Your task to perform on an android device: turn off wifi Image 0: 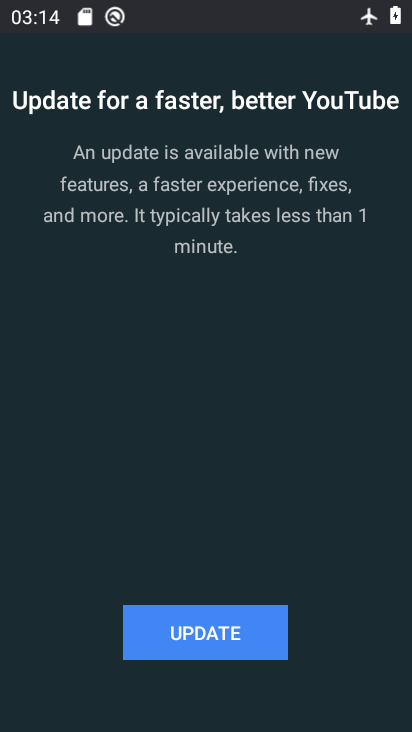
Step 0: press home button
Your task to perform on an android device: turn off wifi Image 1: 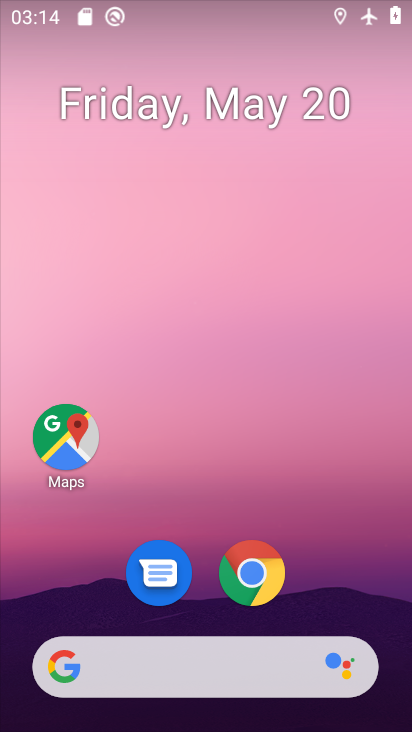
Step 1: drag from (208, 611) to (232, 234)
Your task to perform on an android device: turn off wifi Image 2: 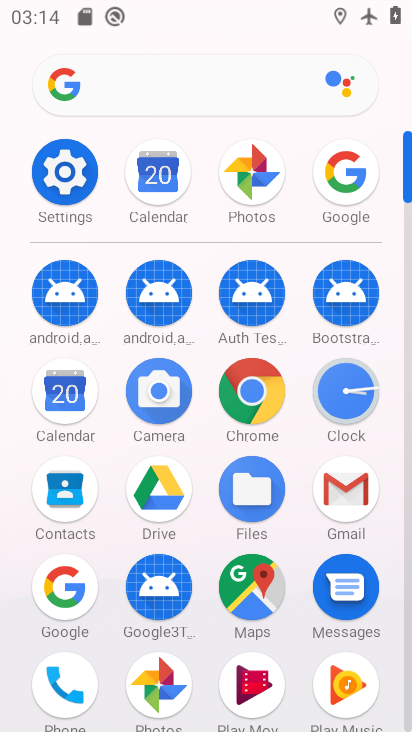
Step 2: click (93, 171)
Your task to perform on an android device: turn off wifi Image 3: 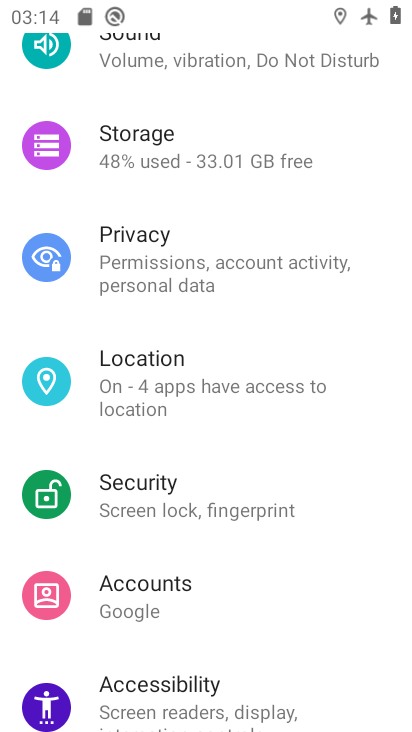
Step 3: drag from (206, 144) to (218, 504)
Your task to perform on an android device: turn off wifi Image 4: 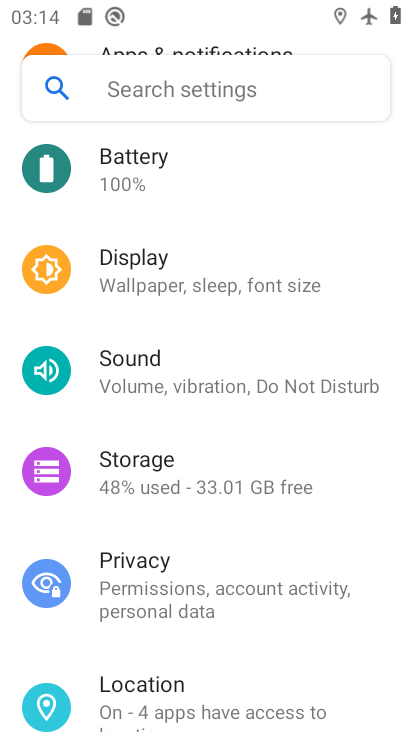
Step 4: drag from (221, 194) to (244, 436)
Your task to perform on an android device: turn off wifi Image 5: 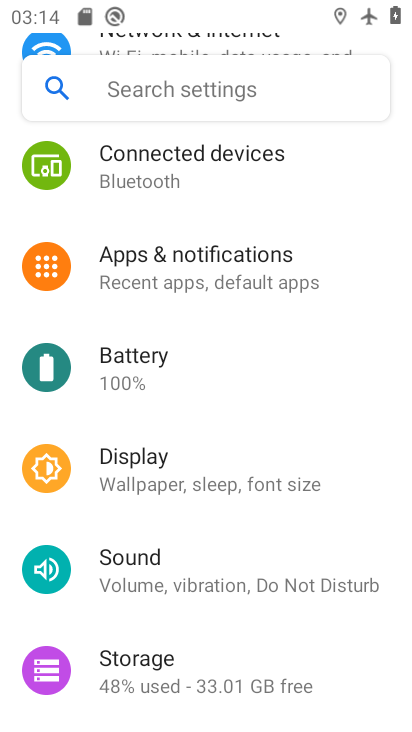
Step 5: drag from (224, 206) to (232, 402)
Your task to perform on an android device: turn off wifi Image 6: 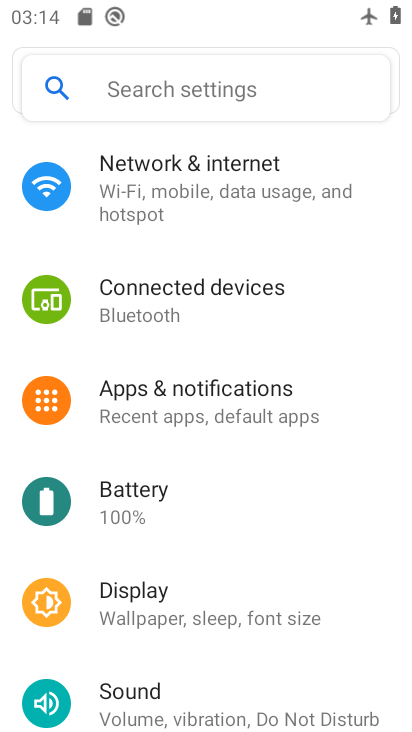
Step 6: drag from (209, 205) to (219, 325)
Your task to perform on an android device: turn off wifi Image 7: 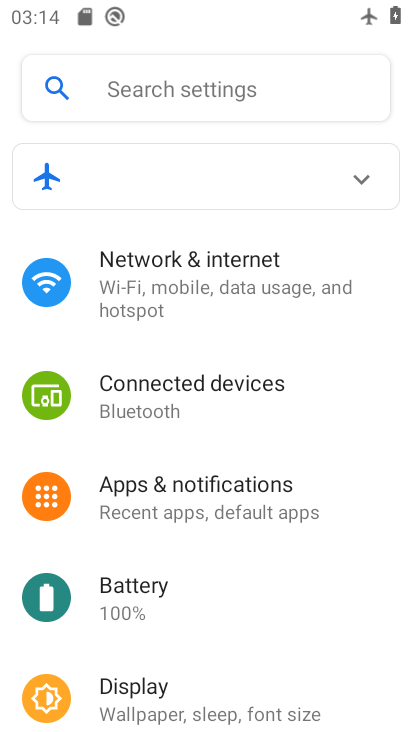
Step 7: click (203, 283)
Your task to perform on an android device: turn off wifi Image 8: 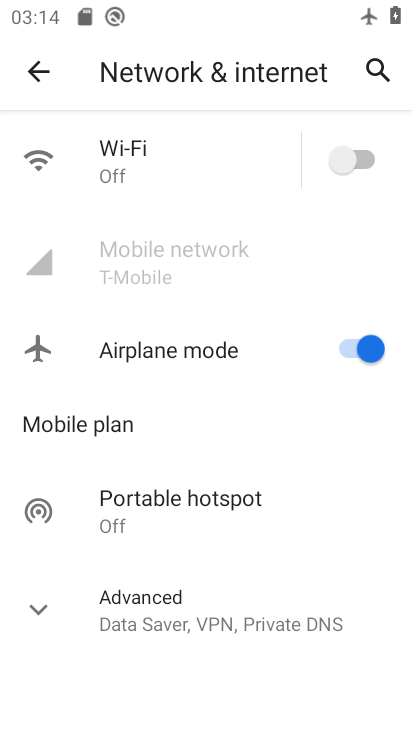
Step 8: click (191, 161)
Your task to perform on an android device: turn off wifi Image 9: 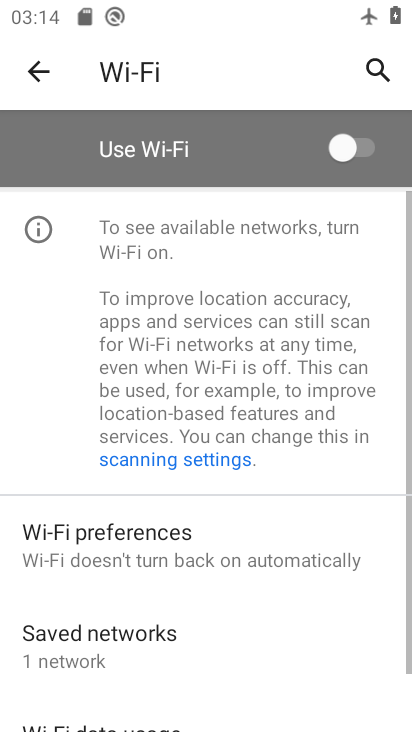
Step 9: click (360, 150)
Your task to perform on an android device: turn off wifi Image 10: 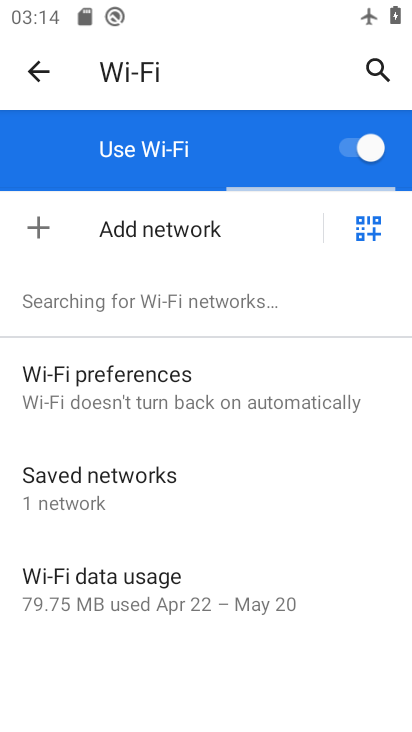
Step 10: task complete